Your task to perform on an android device: check storage Image 0: 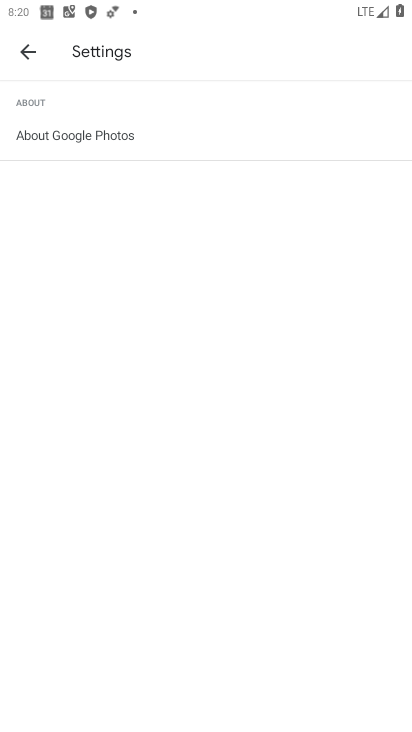
Step 0: press home button
Your task to perform on an android device: check storage Image 1: 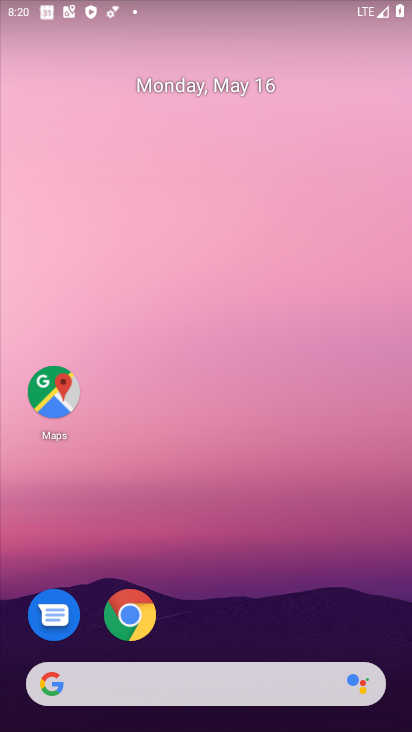
Step 1: drag from (186, 614) to (282, 211)
Your task to perform on an android device: check storage Image 2: 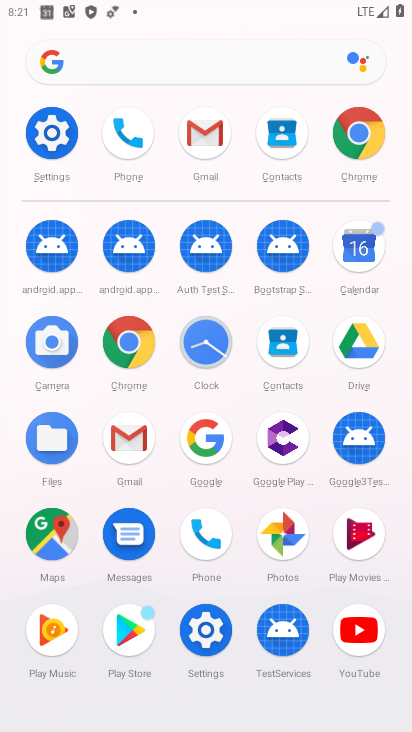
Step 2: click (57, 158)
Your task to perform on an android device: check storage Image 3: 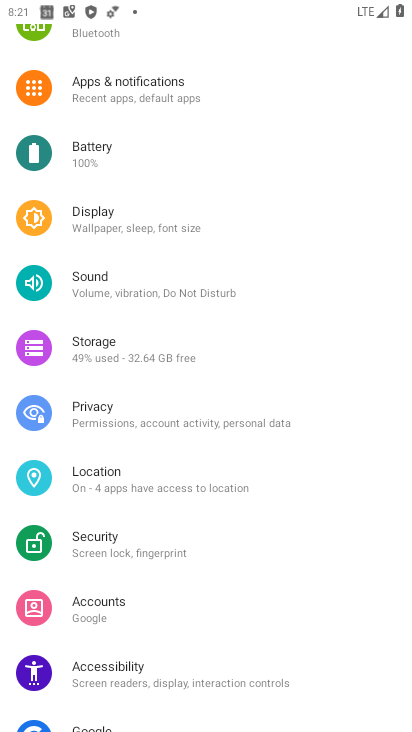
Step 3: drag from (163, 382) to (165, 638)
Your task to perform on an android device: check storage Image 4: 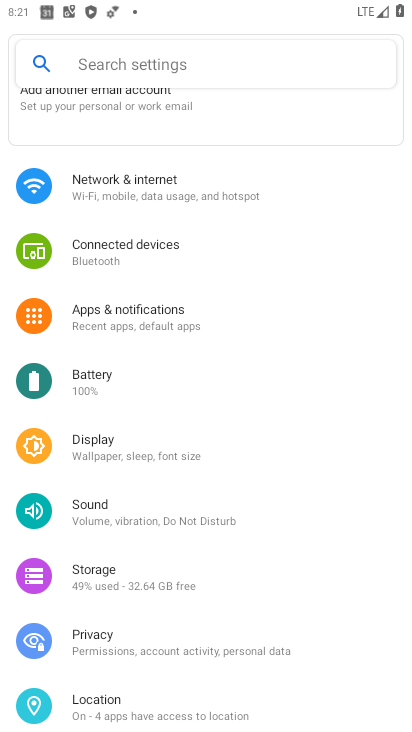
Step 4: drag from (154, 550) to (177, 406)
Your task to perform on an android device: check storage Image 5: 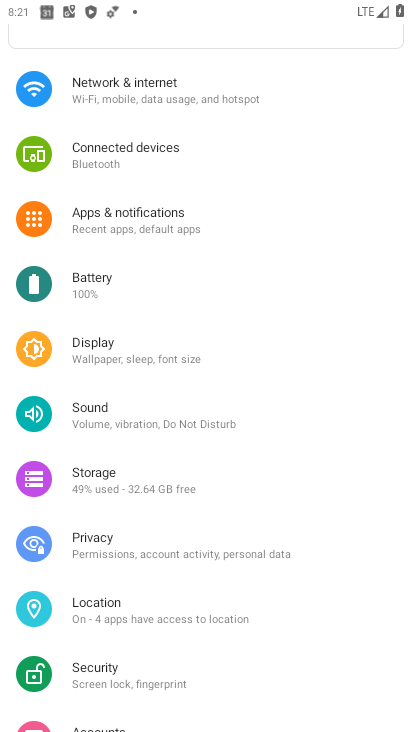
Step 5: click (151, 476)
Your task to perform on an android device: check storage Image 6: 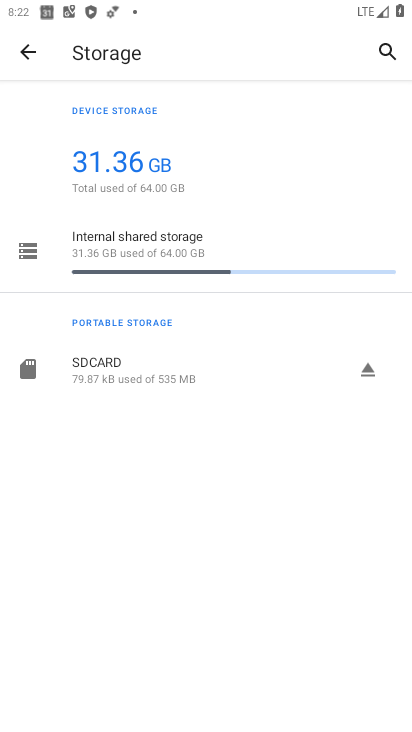
Step 6: click (204, 234)
Your task to perform on an android device: check storage Image 7: 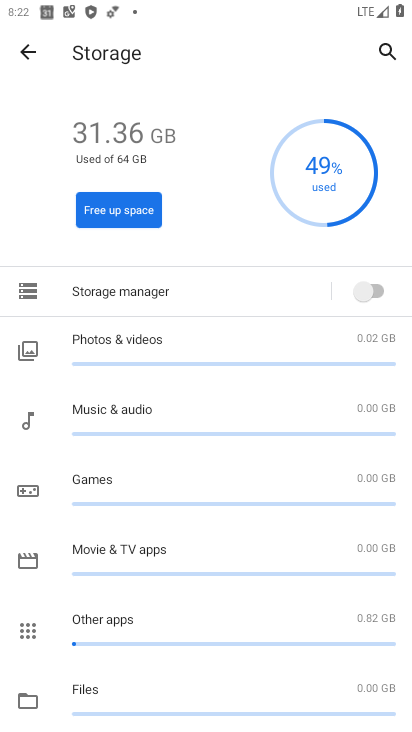
Step 7: task complete